Your task to perform on an android device: When is my next appointment? Image 0: 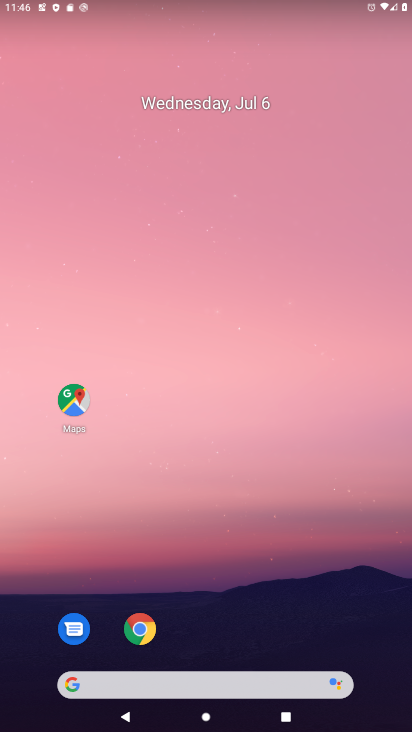
Step 0: drag from (213, 628) to (217, 193)
Your task to perform on an android device: When is my next appointment? Image 1: 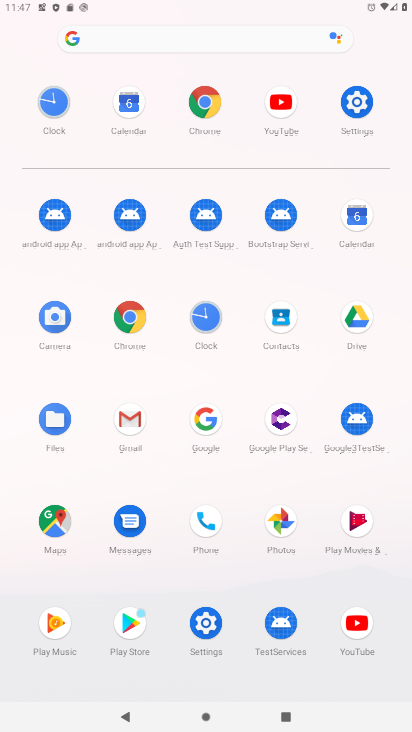
Step 1: click (348, 228)
Your task to perform on an android device: When is my next appointment? Image 2: 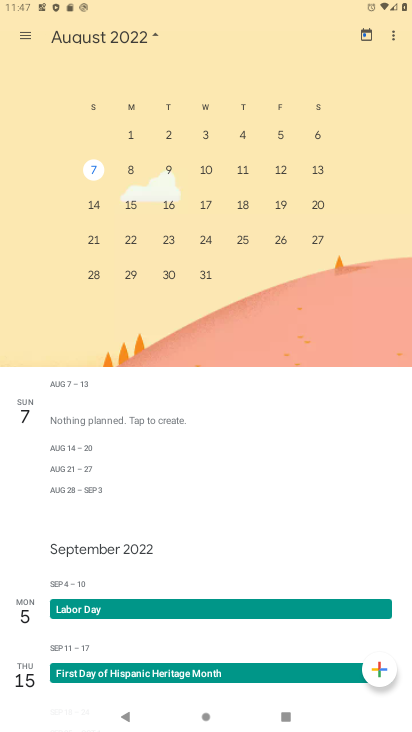
Step 2: task complete